Your task to perform on an android device: set the timer Image 0: 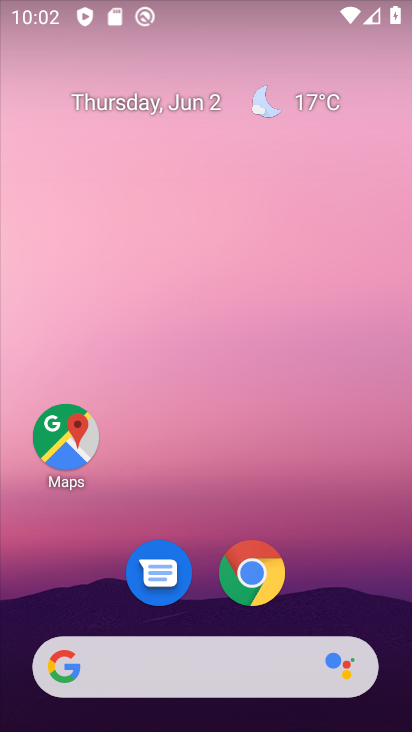
Step 0: drag from (339, 550) to (228, 62)
Your task to perform on an android device: set the timer Image 1: 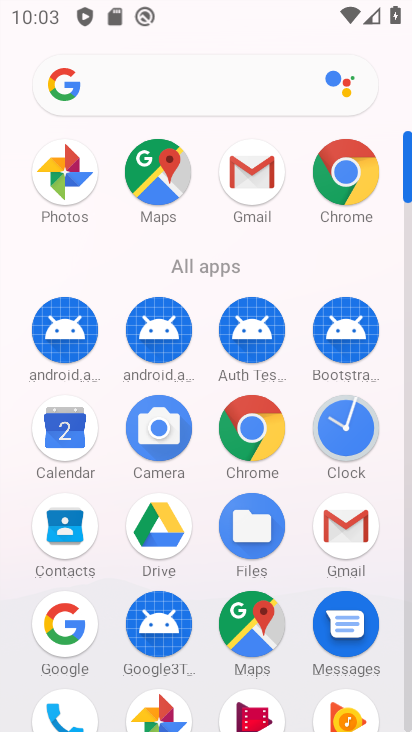
Step 1: click (347, 426)
Your task to perform on an android device: set the timer Image 2: 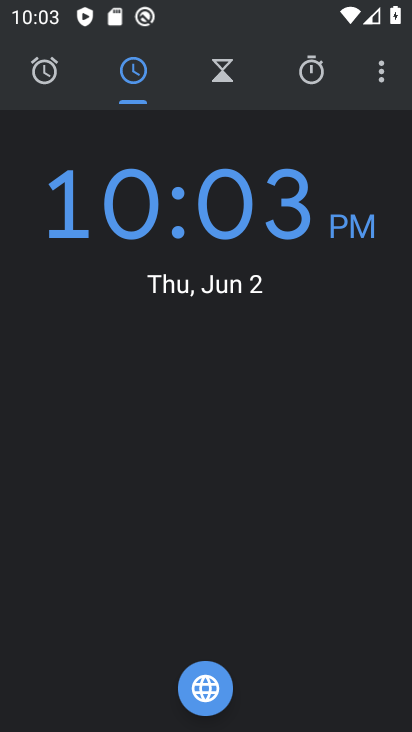
Step 2: click (223, 73)
Your task to perform on an android device: set the timer Image 3: 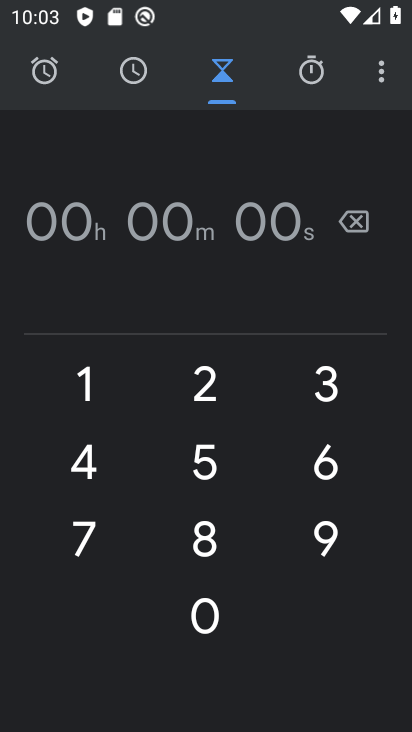
Step 3: type "1357"
Your task to perform on an android device: set the timer Image 4: 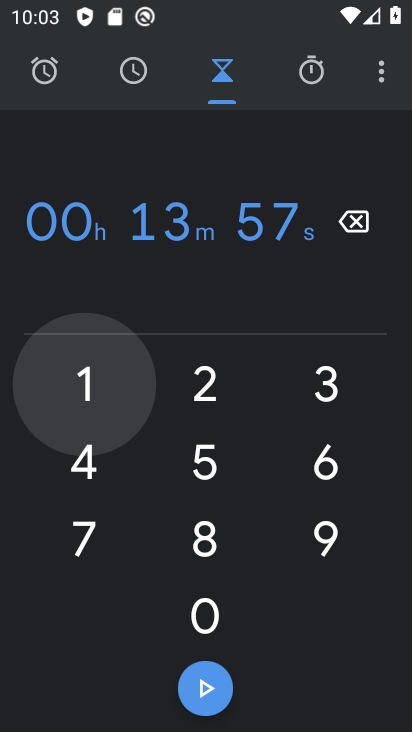
Step 4: click (204, 688)
Your task to perform on an android device: set the timer Image 5: 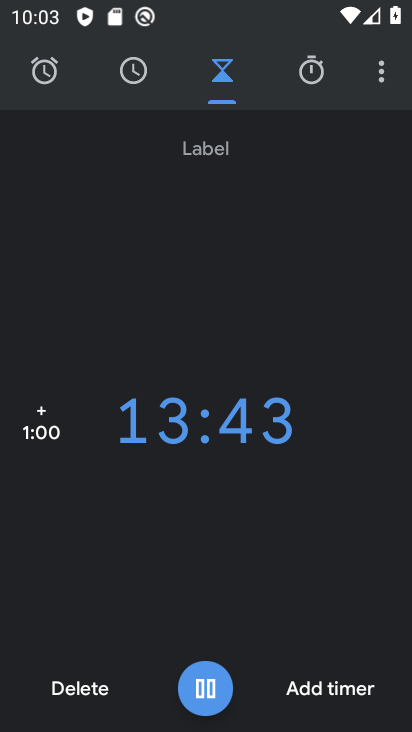
Step 5: click (209, 681)
Your task to perform on an android device: set the timer Image 6: 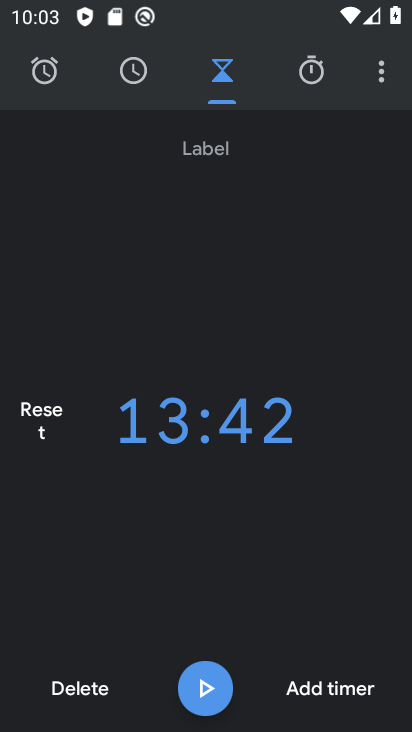
Step 6: task complete